Your task to perform on an android device: Open wifi settings Image 0: 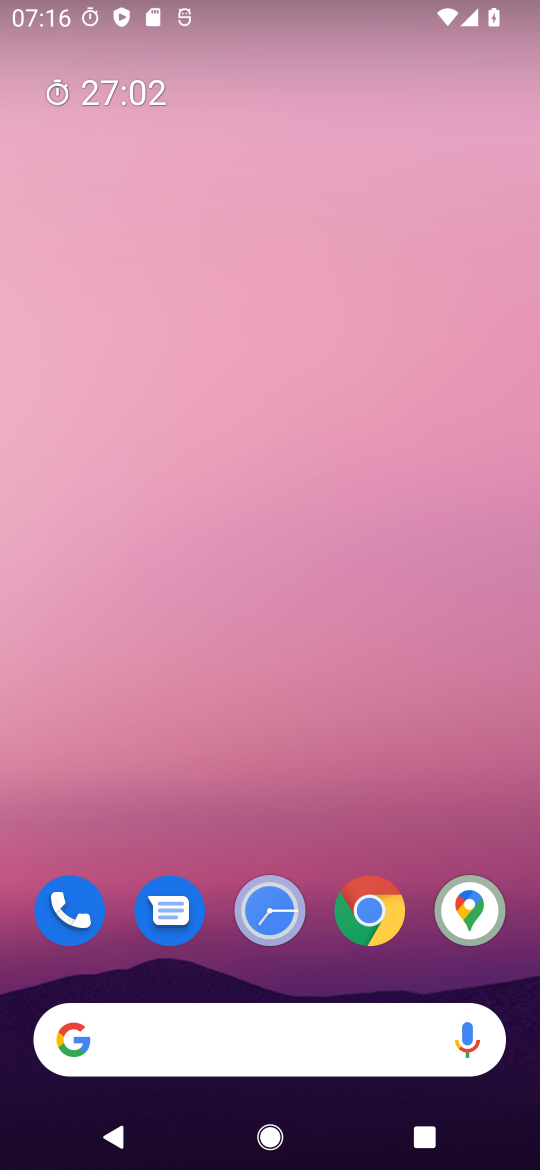
Step 0: drag from (293, 1019) to (286, 117)
Your task to perform on an android device: Open wifi settings Image 1: 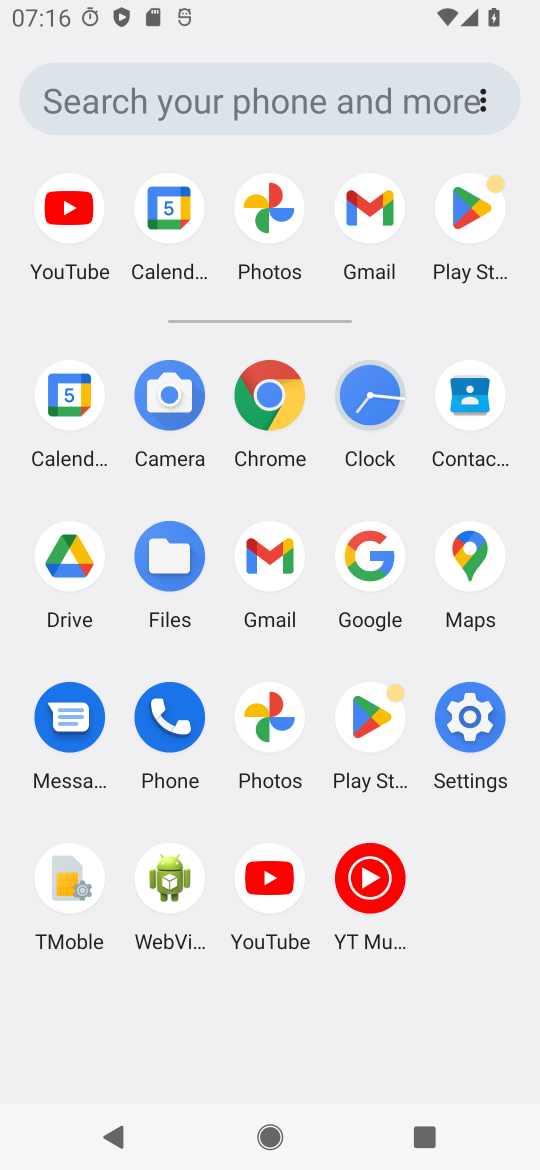
Step 1: click (476, 694)
Your task to perform on an android device: Open wifi settings Image 2: 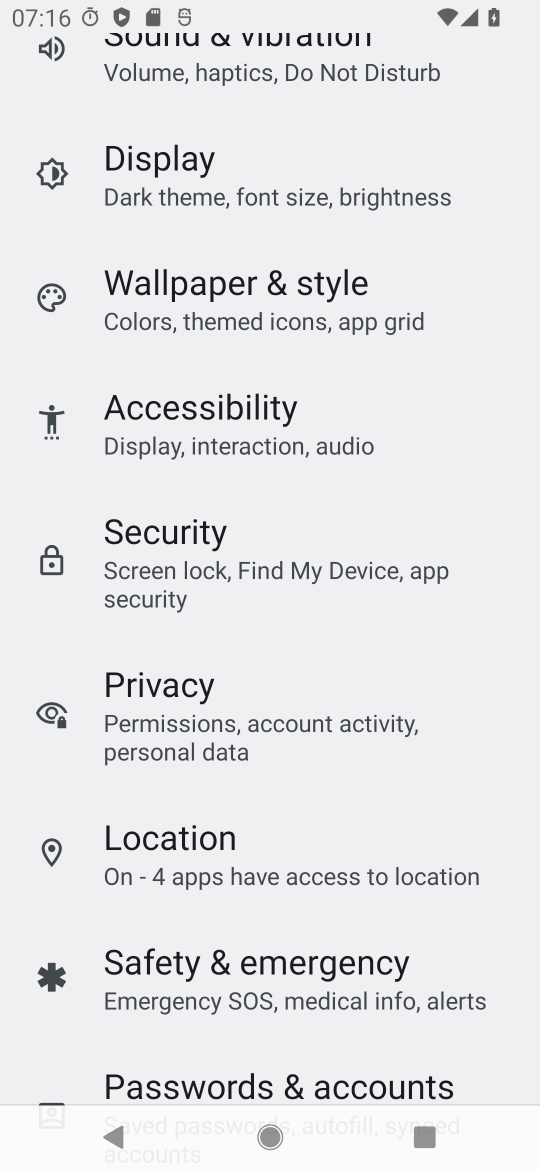
Step 2: drag from (285, 78) to (377, 891)
Your task to perform on an android device: Open wifi settings Image 3: 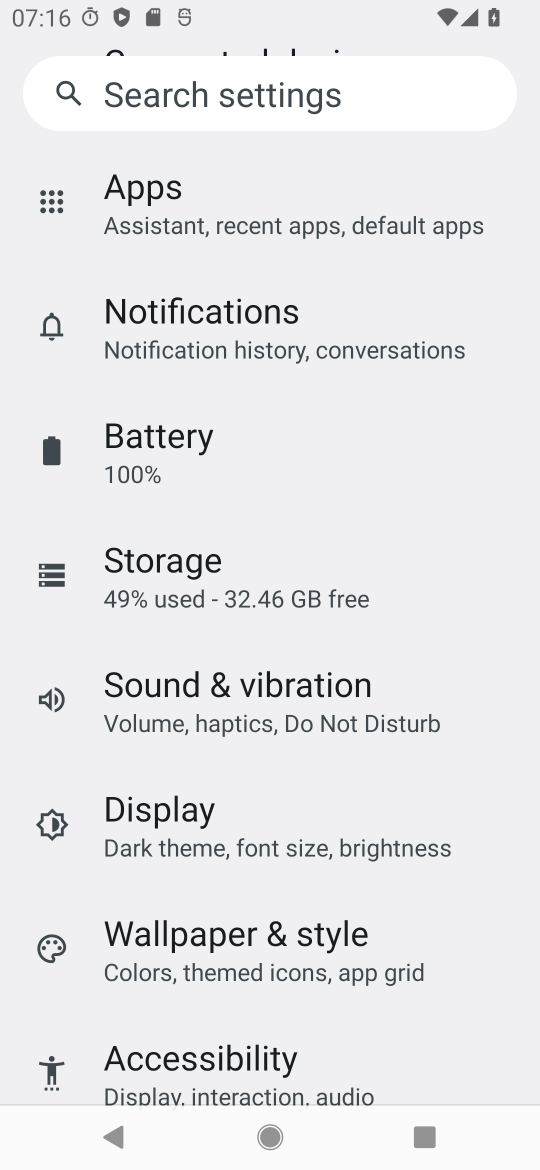
Step 3: drag from (165, 363) to (257, 929)
Your task to perform on an android device: Open wifi settings Image 4: 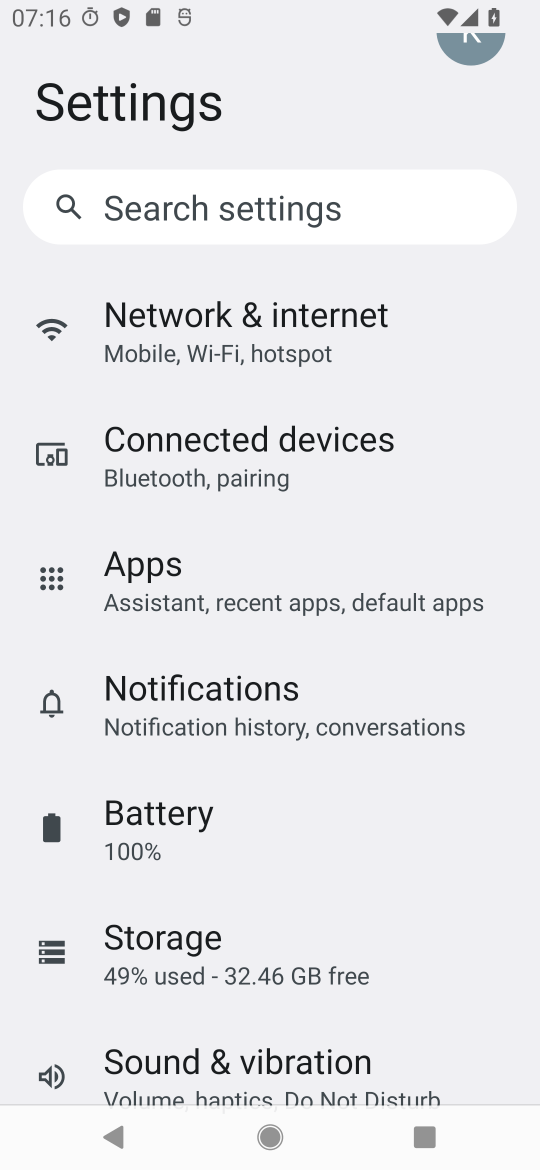
Step 4: click (217, 308)
Your task to perform on an android device: Open wifi settings Image 5: 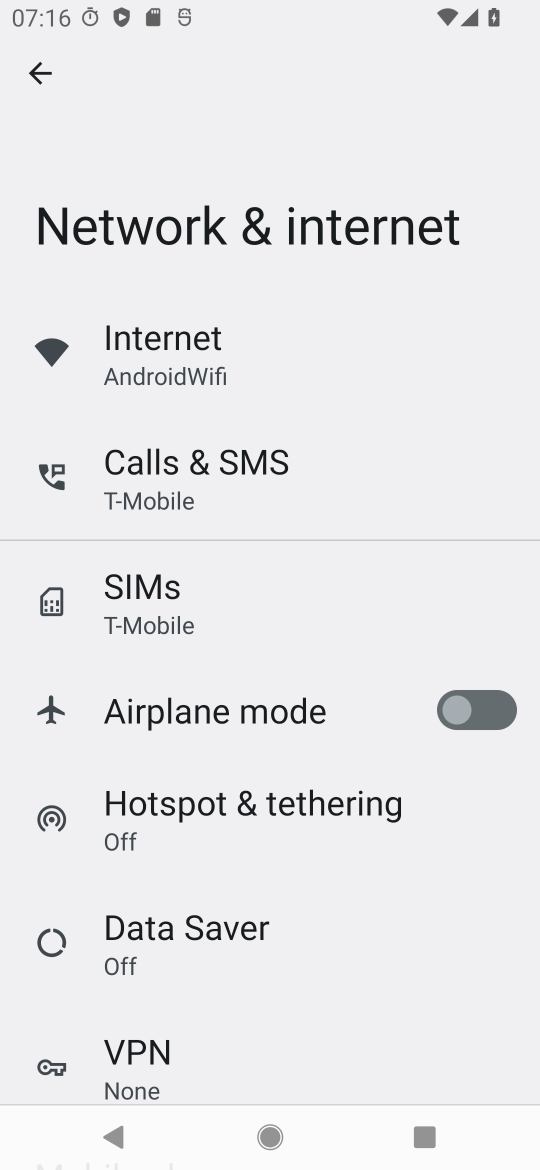
Step 5: click (137, 372)
Your task to perform on an android device: Open wifi settings Image 6: 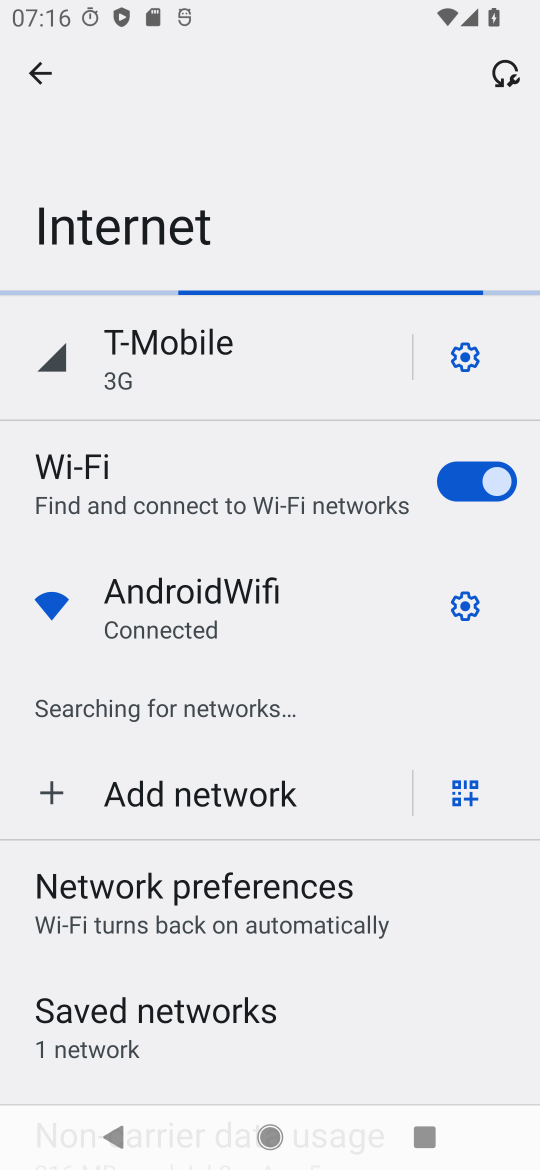
Step 6: task complete